Your task to perform on an android device: change the clock display to show seconds Image 0: 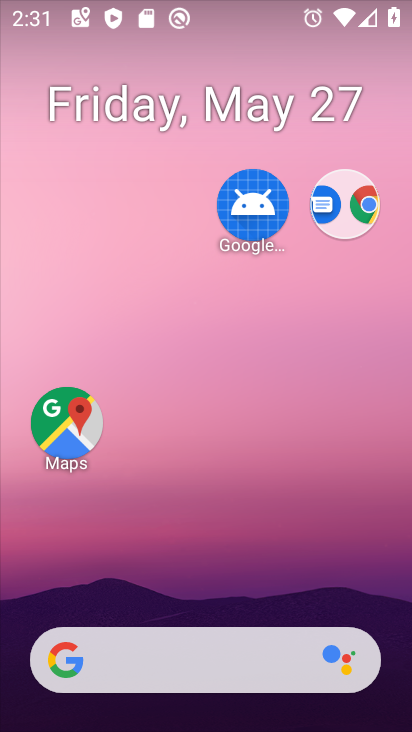
Step 0: drag from (203, 605) to (246, 239)
Your task to perform on an android device: change the clock display to show seconds Image 1: 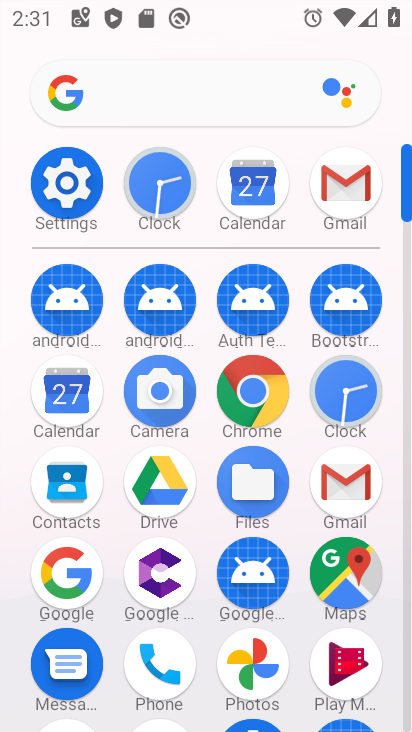
Step 1: click (339, 384)
Your task to perform on an android device: change the clock display to show seconds Image 2: 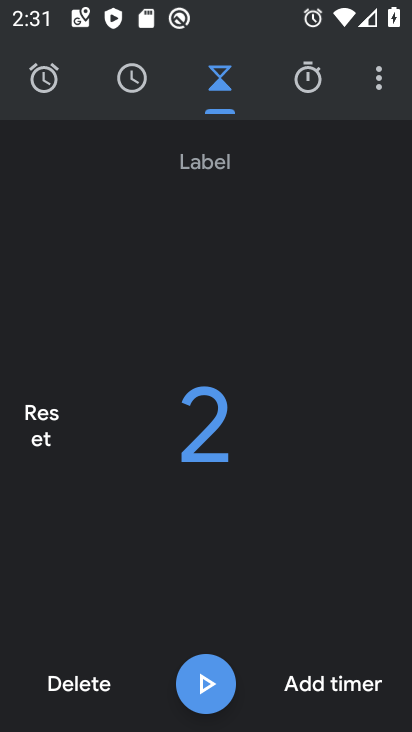
Step 2: click (379, 100)
Your task to perform on an android device: change the clock display to show seconds Image 3: 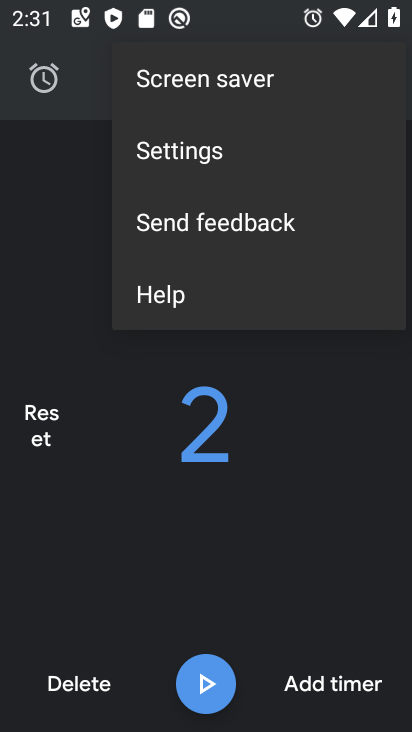
Step 3: click (220, 157)
Your task to perform on an android device: change the clock display to show seconds Image 4: 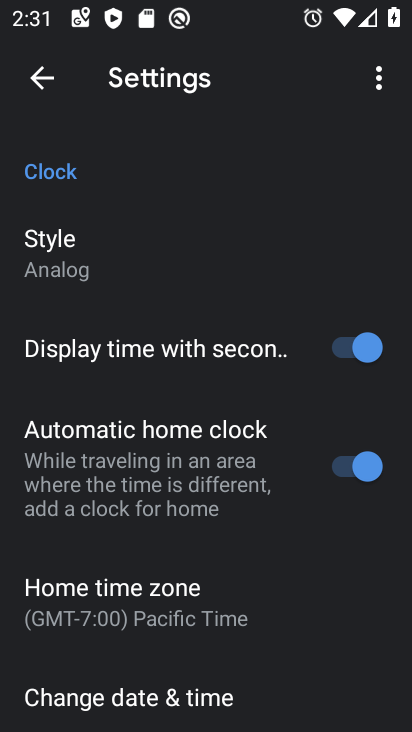
Step 4: task complete